Your task to perform on an android device: Turn off the flashlight Image 0: 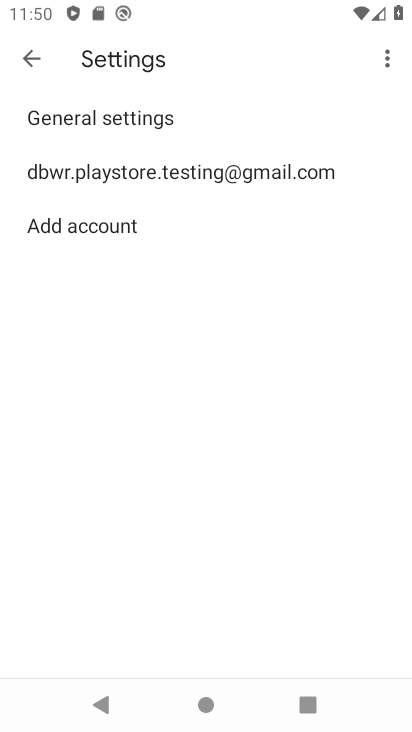
Step 0: press home button
Your task to perform on an android device: Turn off the flashlight Image 1: 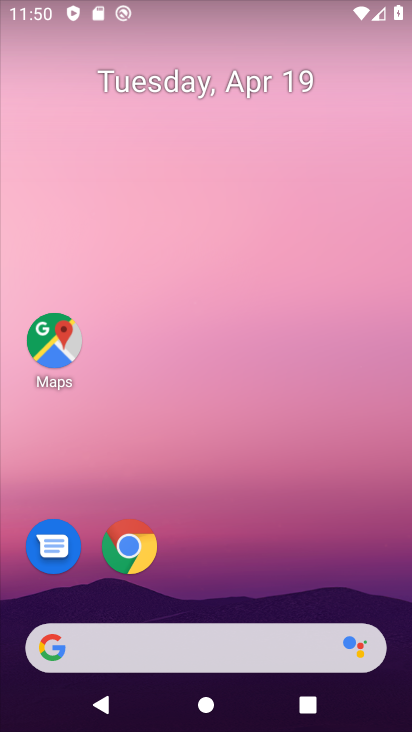
Step 1: task complete